Your task to perform on an android device: turn notification dots off Image 0: 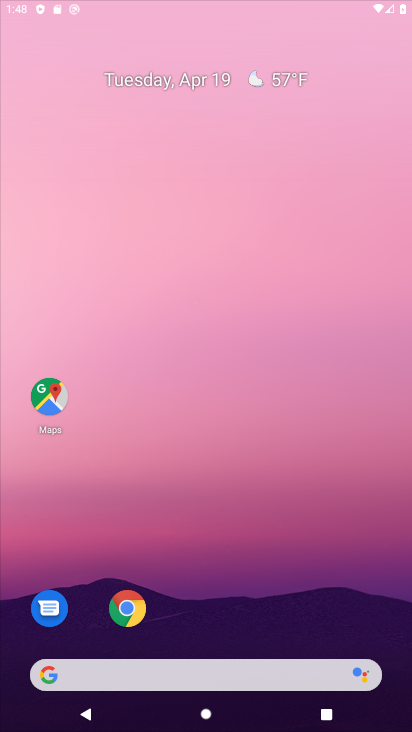
Step 0: click (208, 192)
Your task to perform on an android device: turn notification dots off Image 1: 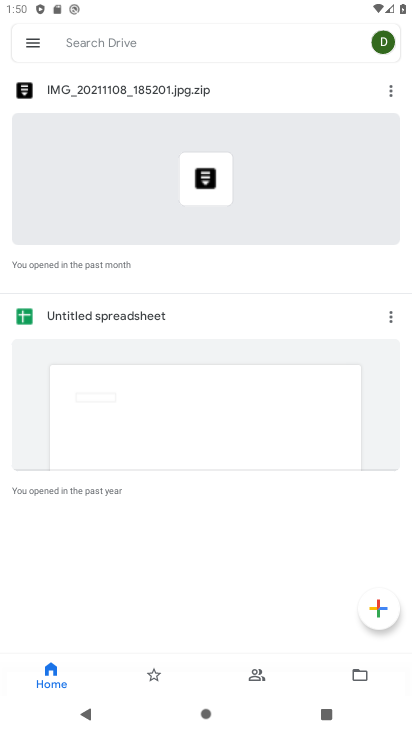
Step 1: press home button
Your task to perform on an android device: turn notification dots off Image 2: 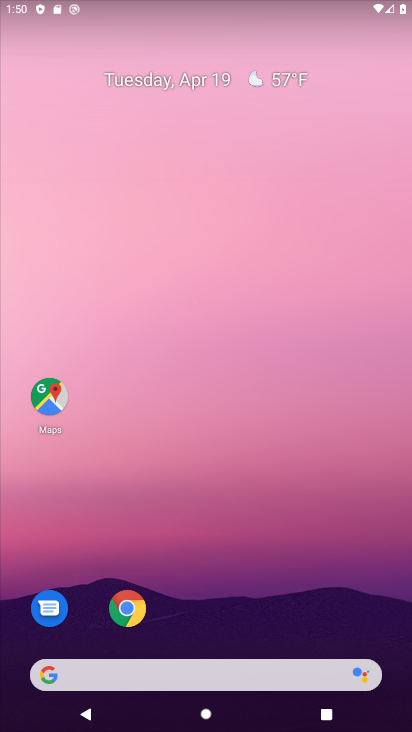
Step 2: drag from (192, 626) to (236, 102)
Your task to perform on an android device: turn notification dots off Image 3: 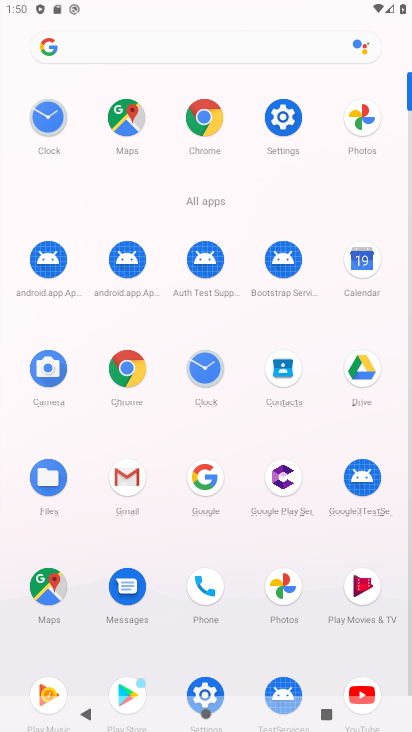
Step 3: click (202, 685)
Your task to perform on an android device: turn notification dots off Image 4: 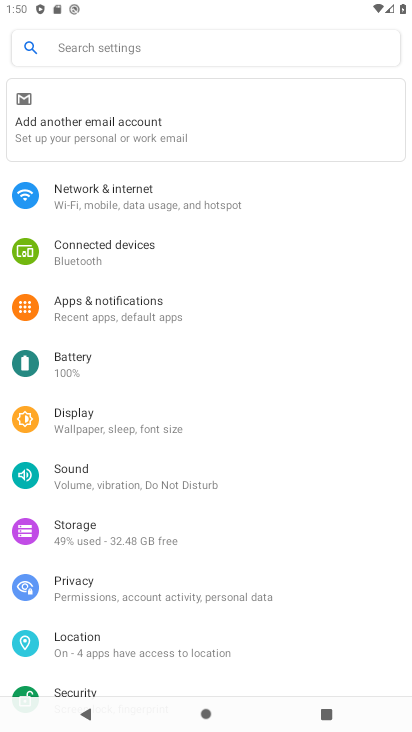
Step 4: click (160, 297)
Your task to perform on an android device: turn notification dots off Image 5: 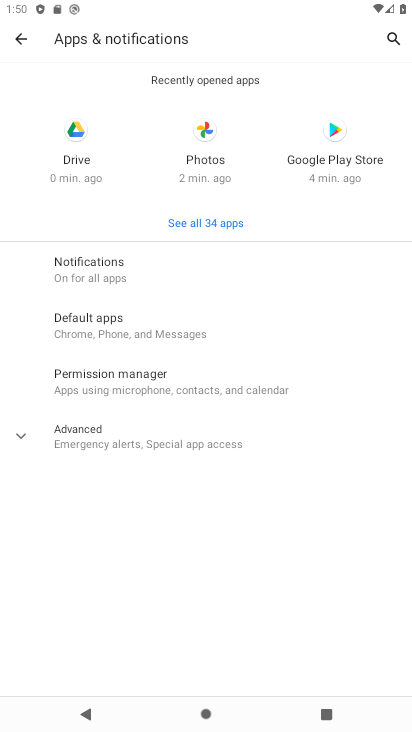
Step 5: click (113, 270)
Your task to perform on an android device: turn notification dots off Image 6: 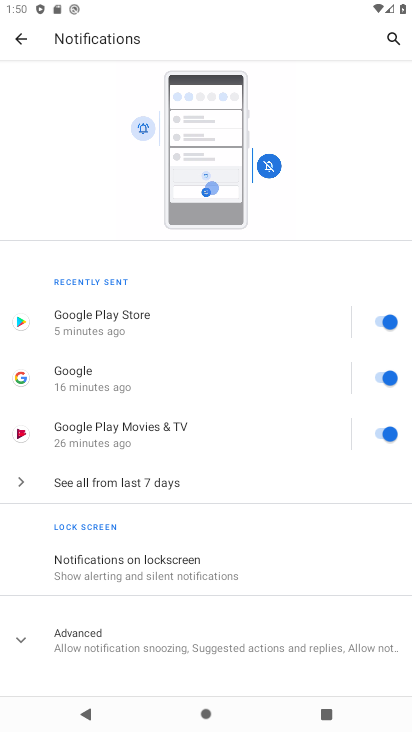
Step 6: click (143, 640)
Your task to perform on an android device: turn notification dots off Image 7: 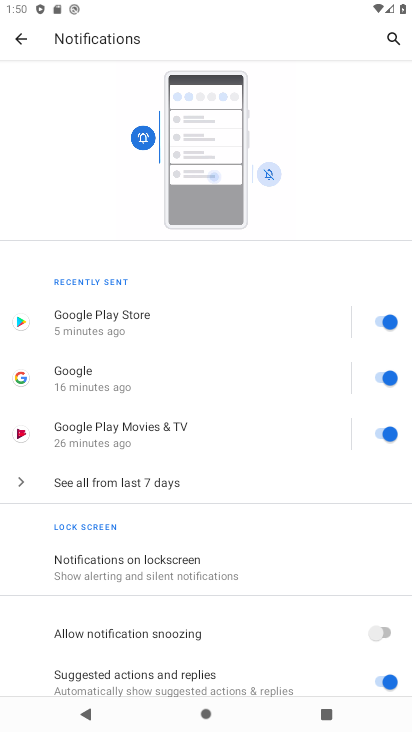
Step 7: drag from (252, 641) to (301, 311)
Your task to perform on an android device: turn notification dots off Image 8: 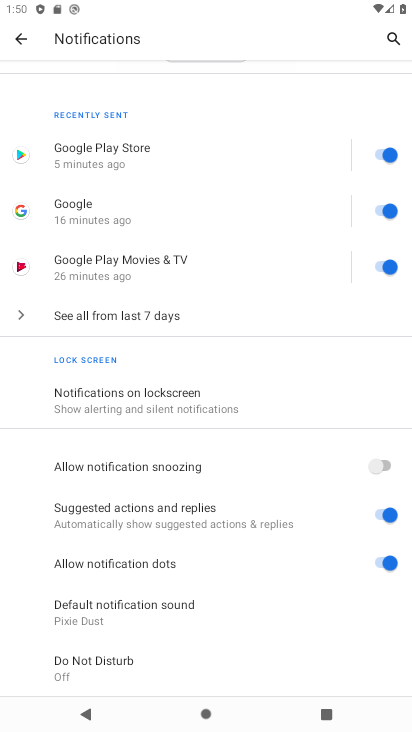
Step 8: click (388, 570)
Your task to perform on an android device: turn notification dots off Image 9: 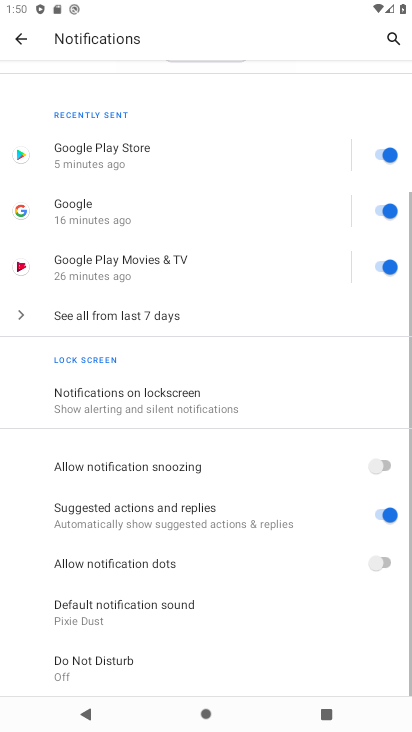
Step 9: task complete